Your task to perform on an android device: toggle notification dots Image 0: 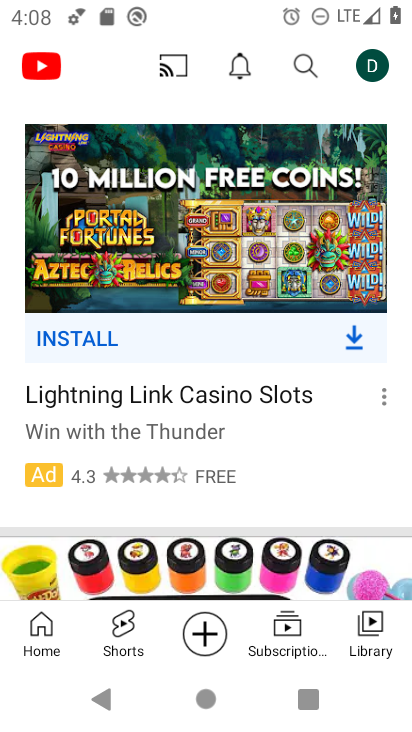
Step 0: press home button
Your task to perform on an android device: toggle notification dots Image 1: 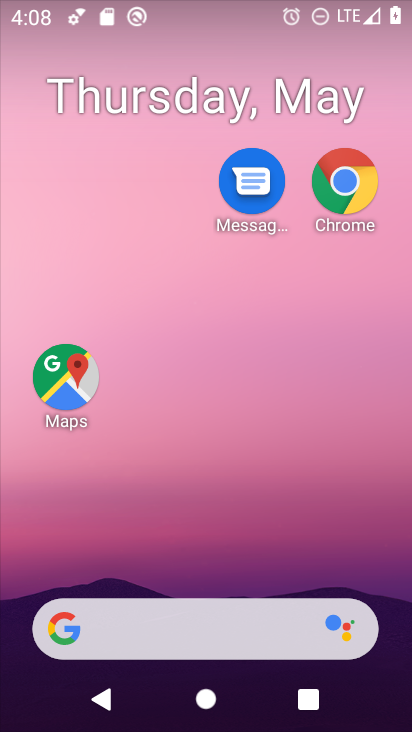
Step 1: drag from (163, 575) to (271, 16)
Your task to perform on an android device: toggle notification dots Image 2: 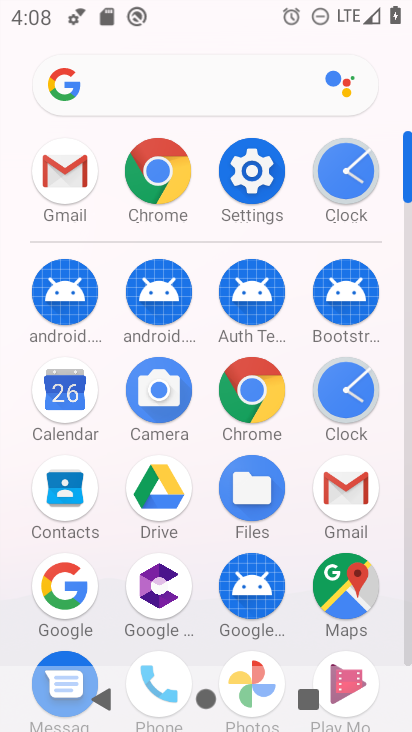
Step 2: click (248, 181)
Your task to perform on an android device: toggle notification dots Image 3: 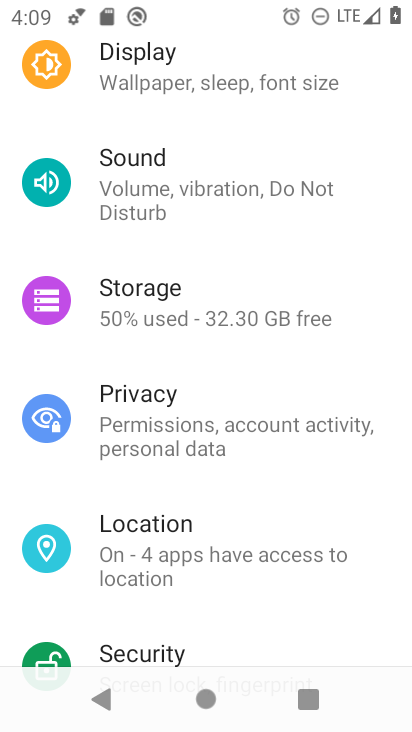
Step 3: drag from (198, 587) to (235, 113)
Your task to perform on an android device: toggle notification dots Image 4: 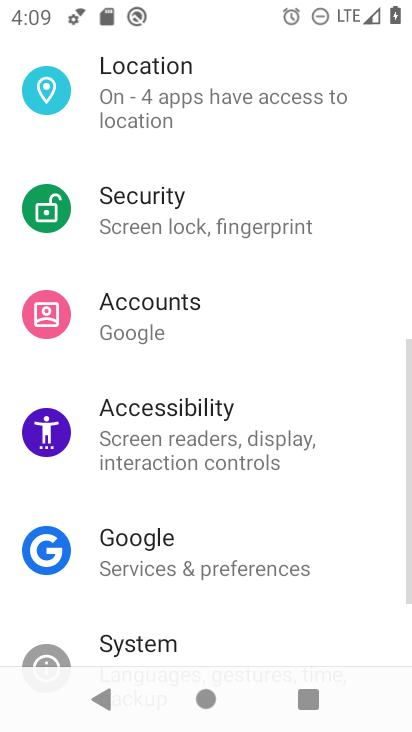
Step 4: drag from (229, 151) to (290, 730)
Your task to perform on an android device: toggle notification dots Image 5: 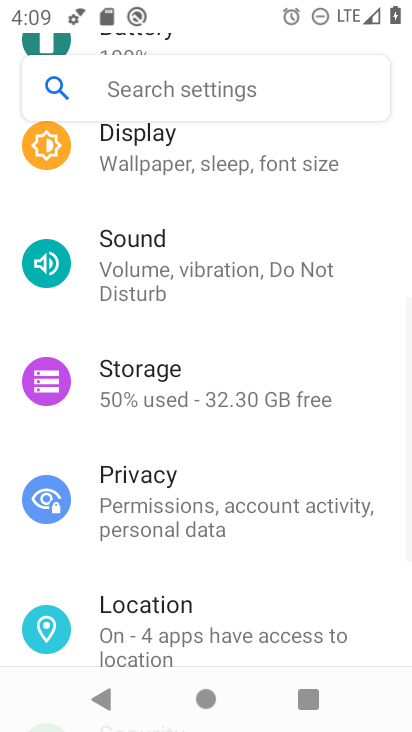
Step 5: drag from (311, 262) to (294, 592)
Your task to perform on an android device: toggle notification dots Image 6: 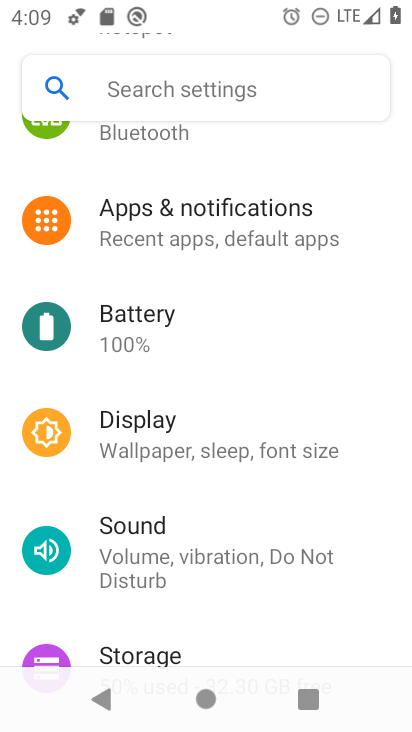
Step 6: click (248, 227)
Your task to perform on an android device: toggle notification dots Image 7: 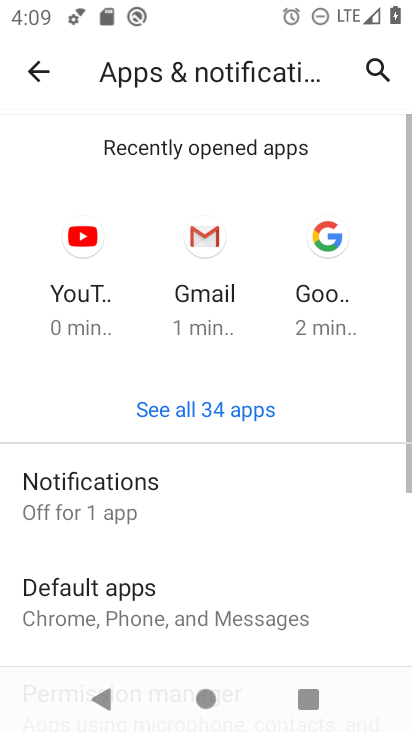
Step 7: drag from (298, 653) to (335, 109)
Your task to perform on an android device: toggle notification dots Image 8: 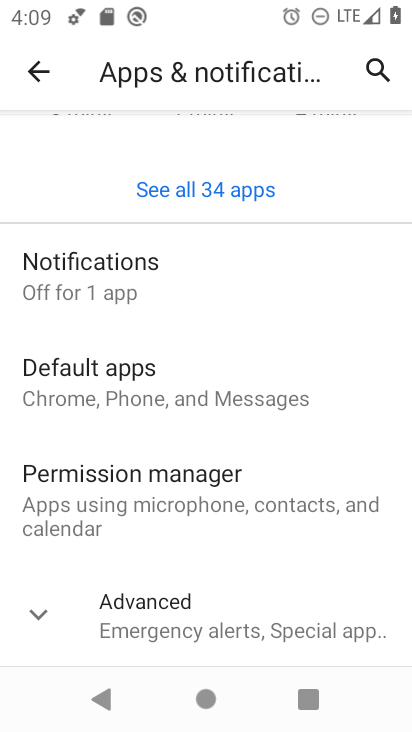
Step 8: click (155, 282)
Your task to perform on an android device: toggle notification dots Image 9: 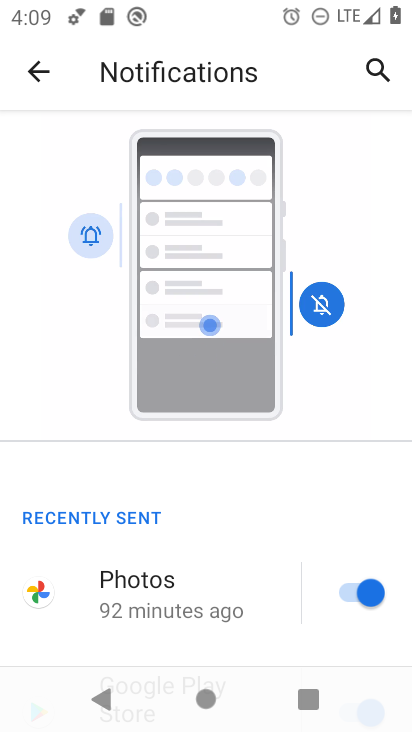
Step 9: drag from (234, 613) to (281, 146)
Your task to perform on an android device: toggle notification dots Image 10: 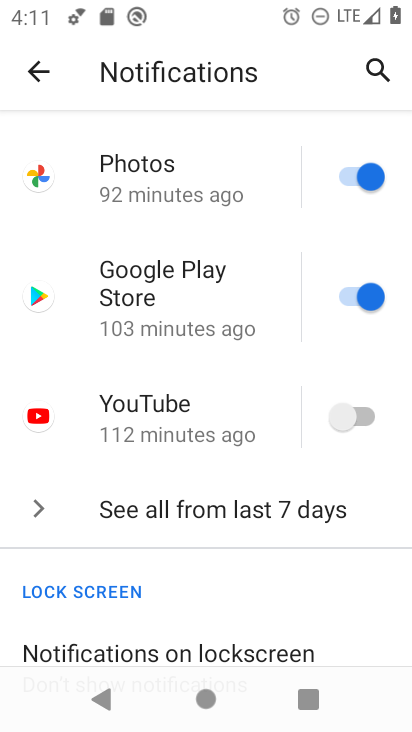
Step 10: drag from (126, 598) to (164, 76)
Your task to perform on an android device: toggle notification dots Image 11: 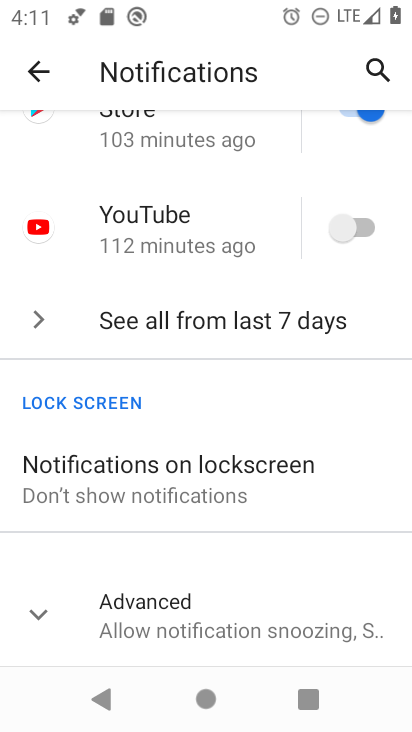
Step 11: click (204, 613)
Your task to perform on an android device: toggle notification dots Image 12: 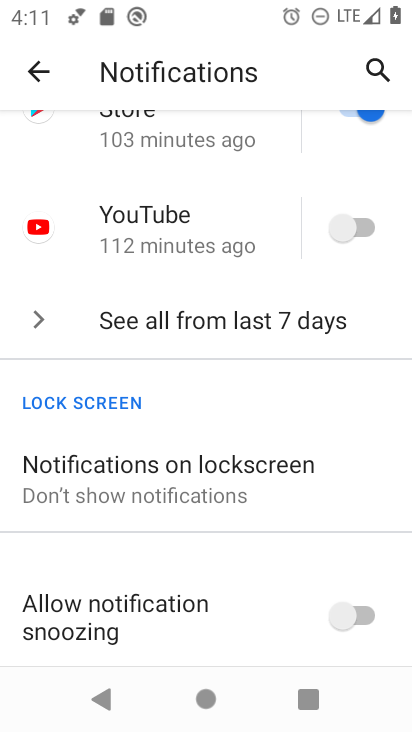
Step 12: drag from (234, 621) to (309, 12)
Your task to perform on an android device: toggle notification dots Image 13: 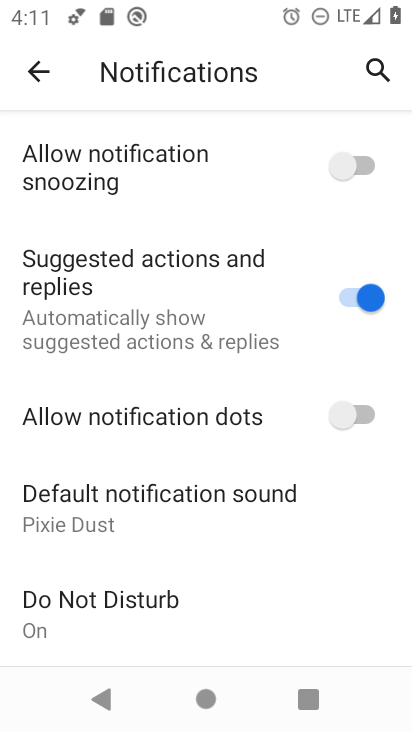
Step 13: click (357, 412)
Your task to perform on an android device: toggle notification dots Image 14: 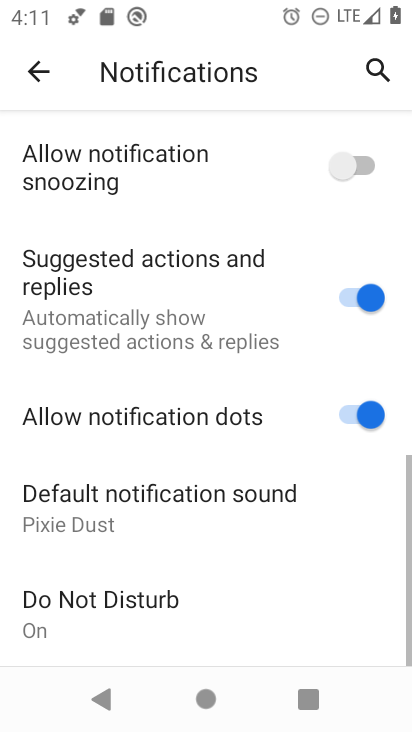
Step 14: task complete